Your task to perform on an android device: turn notification dots off Image 0: 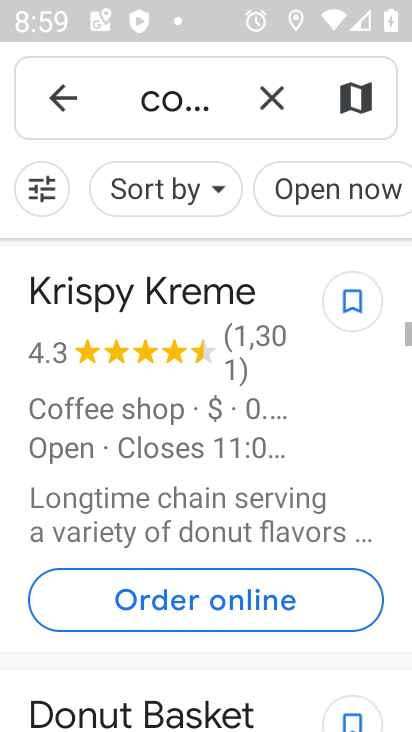
Step 0: press home button
Your task to perform on an android device: turn notification dots off Image 1: 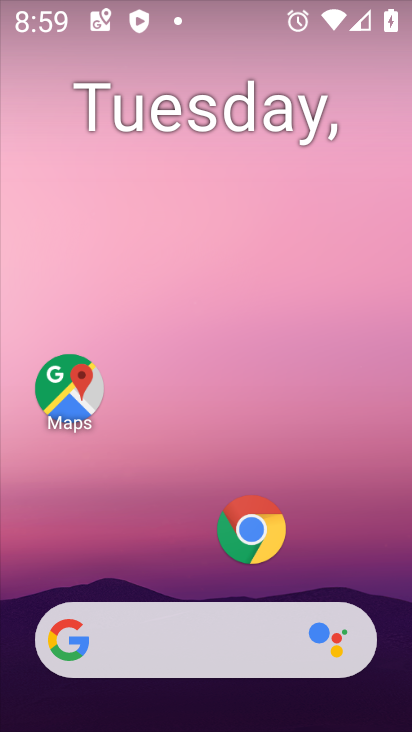
Step 1: drag from (195, 578) to (230, 69)
Your task to perform on an android device: turn notification dots off Image 2: 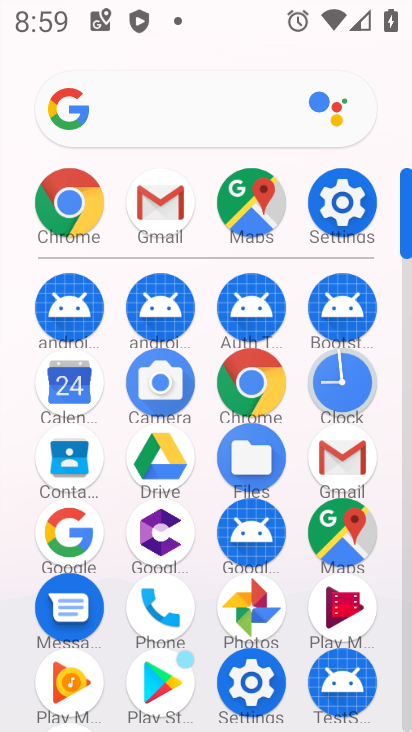
Step 2: click (340, 197)
Your task to perform on an android device: turn notification dots off Image 3: 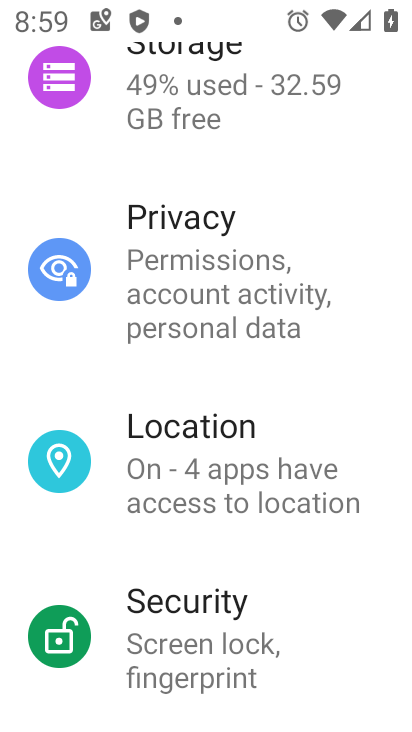
Step 3: drag from (216, 164) to (303, 666)
Your task to perform on an android device: turn notification dots off Image 4: 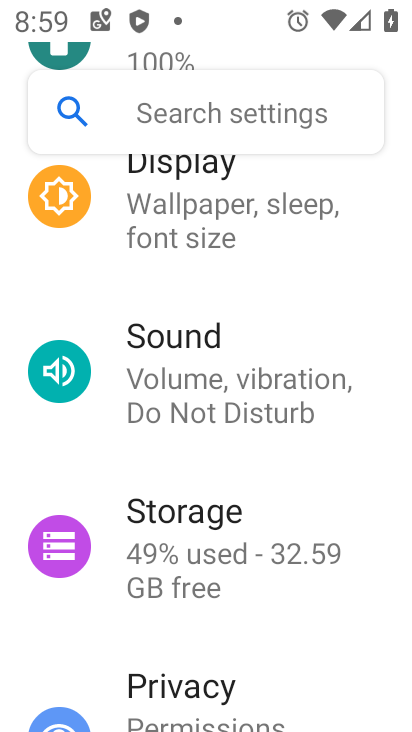
Step 4: drag from (252, 195) to (259, 592)
Your task to perform on an android device: turn notification dots off Image 5: 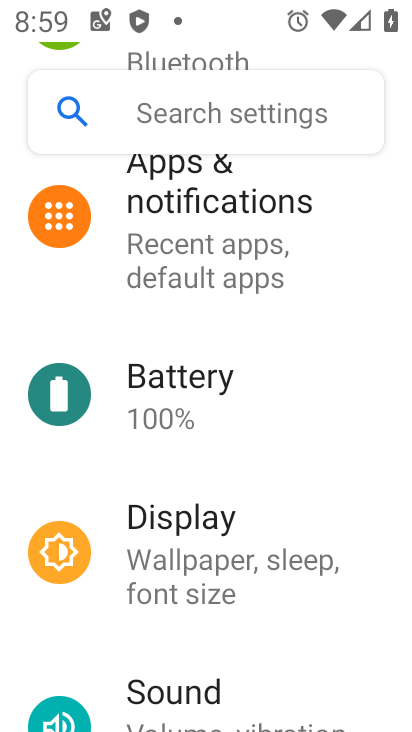
Step 5: click (304, 233)
Your task to perform on an android device: turn notification dots off Image 6: 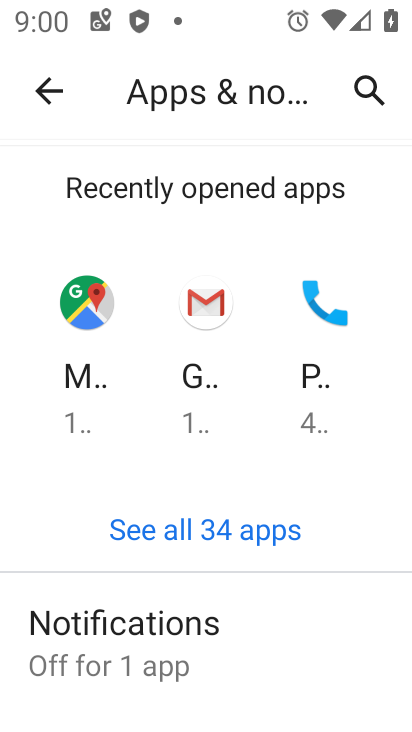
Step 6: click (213, 651)
Your task to perform on an android device: turn notification dots off Image 7: 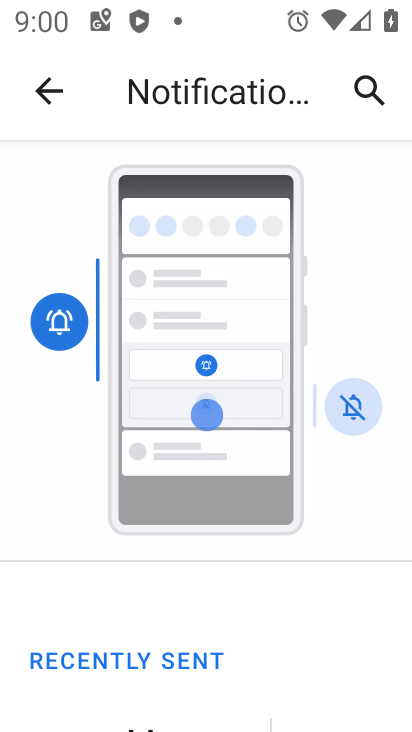
Step 7: drag from (246, 682) to (276, 173)
Your task to perform on an android device: turn notification dots off Image 8: 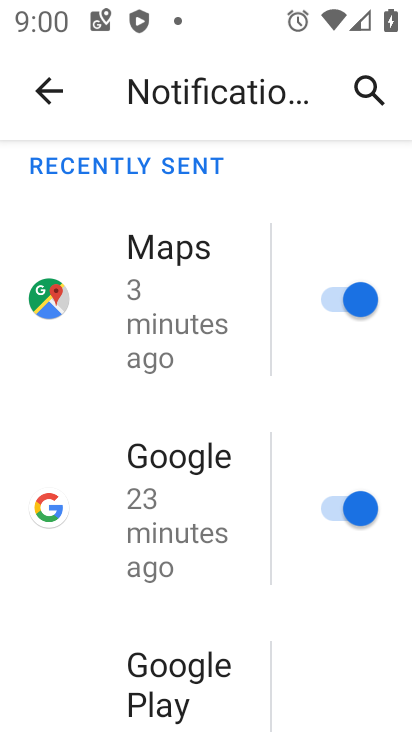
Step 8: drag from (253, 320) to (265, 185)
Your task to perform on an android device: turn notification dots off Image 9: 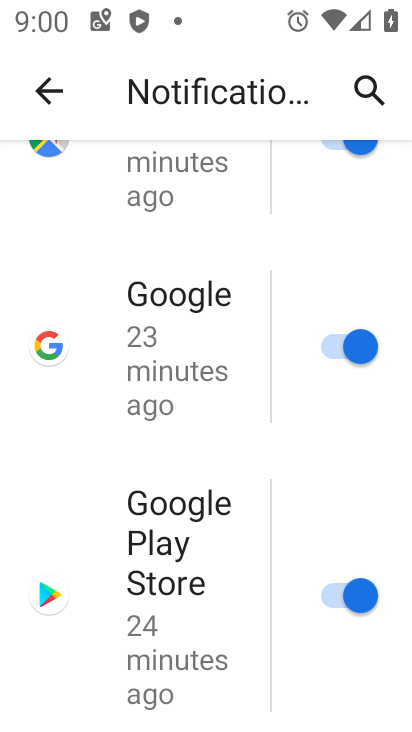
Step 9: drag from (252, 697) to (278, 172)
Your task to perform on an android device: turn notification dots off Image 10: 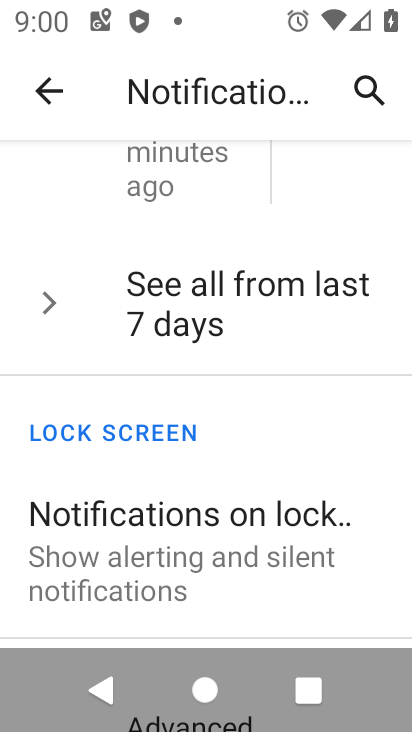
Step 10: drag from (249, 612) to (268, 129)
Your task to perform on an android device: turn notification dots off Image 11: 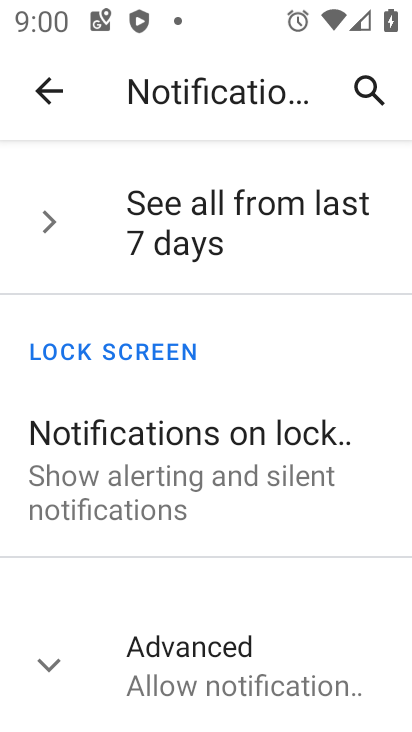
Step 11: click (47, 660)
Your task to perform on an android device: turn notification dots off Image 12: 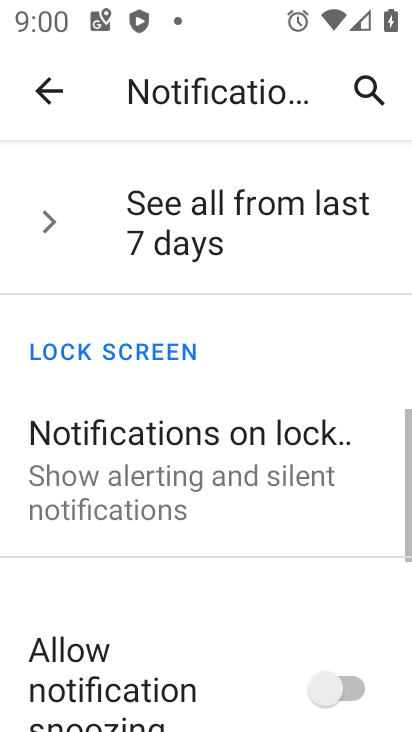
Step 12: drag from (213, 654) to (225, 114)
Your task to perform on an android device: turn notification dots off Image 13: 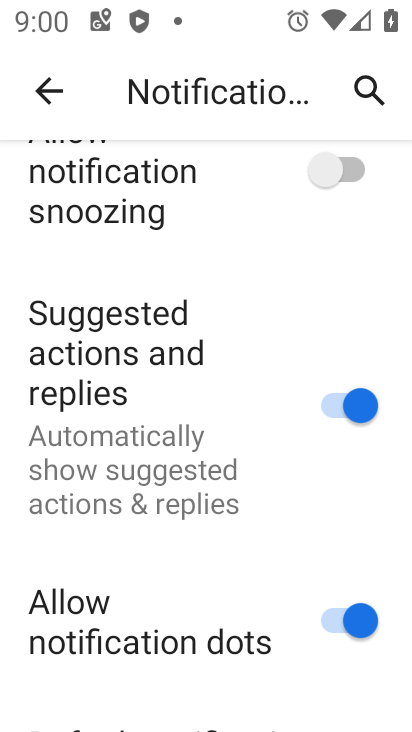
Step 13: click (334, 614)
Your task to perform on an android device: turn notification dots off Image 14: 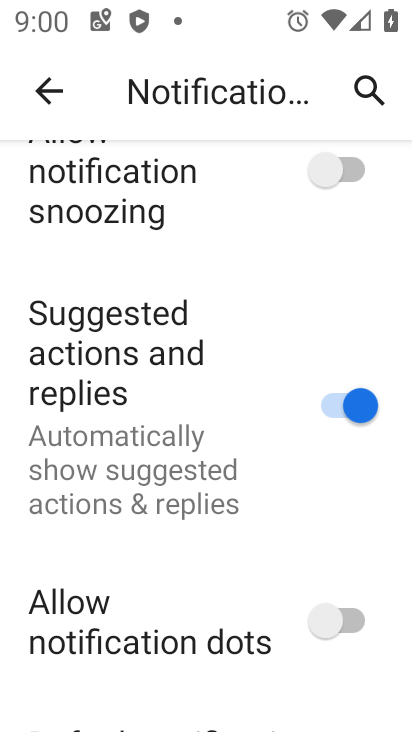
Step 14: task complete